Your task to perform on an android device: open chrome privacy settings Image 0: 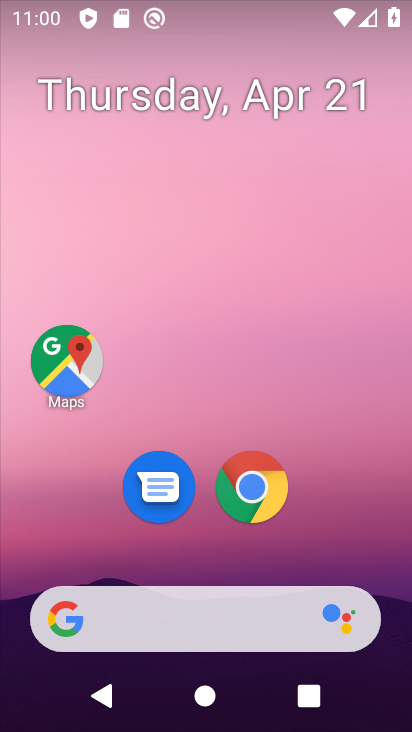
Step 0: click (249, 515)
Your task to perform on an android device: open chrome privacy settings Image 1: 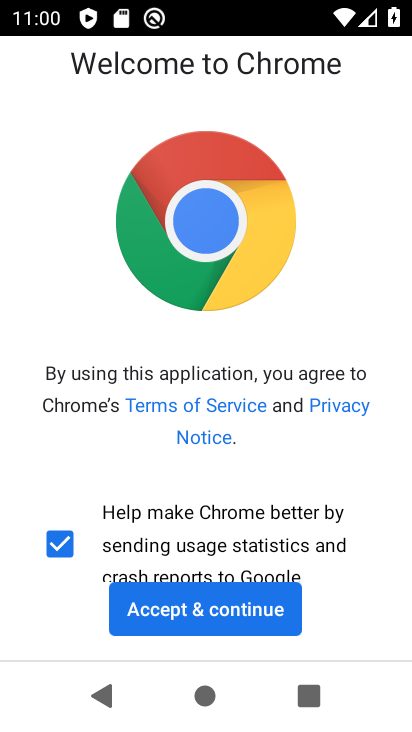
Step 1: click (217, 611)
Your task to perform on an android device: open chrome privacy settings Image 2: 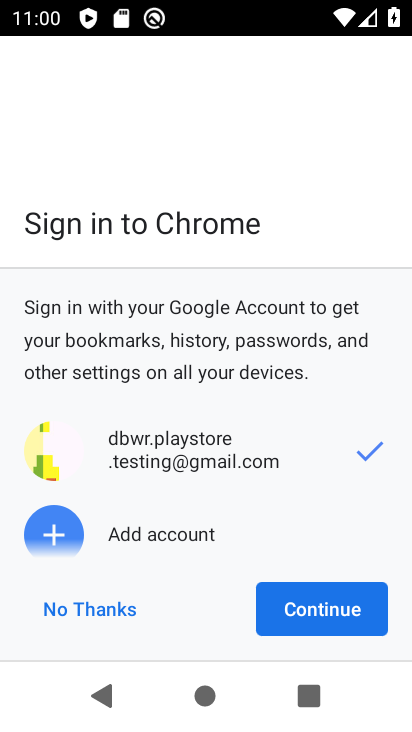
Step 2: click (283, 613)
Your task to perform on an android device: open chrome privacy settings Image 3: 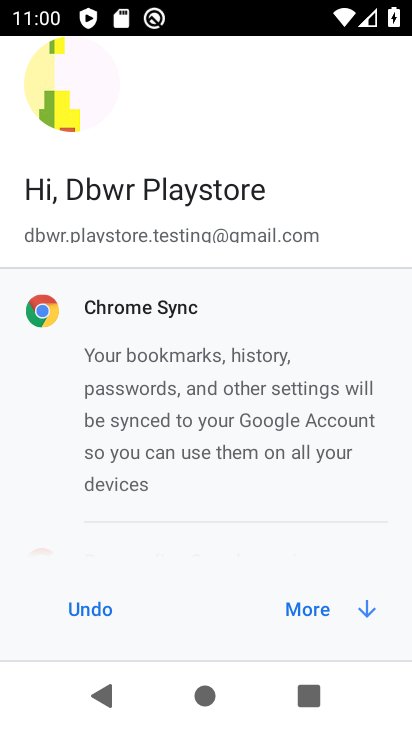
Step 3: click (283, 613)
Your task to perform on an android device: open chrome privacy settings Image 4: 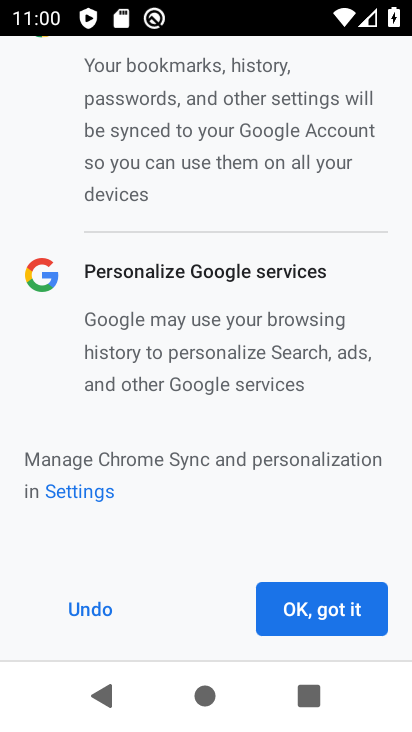
Step 4: click (316, 612)
Your task to perform on an android device: open chrome privacy settings Image 5: 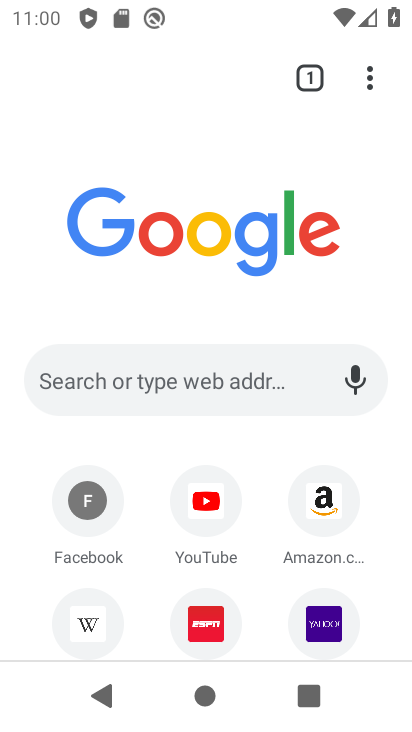
Step 5: click (370, 79)
Your task to perform on an android device: open chrome privacy settings Image 6: 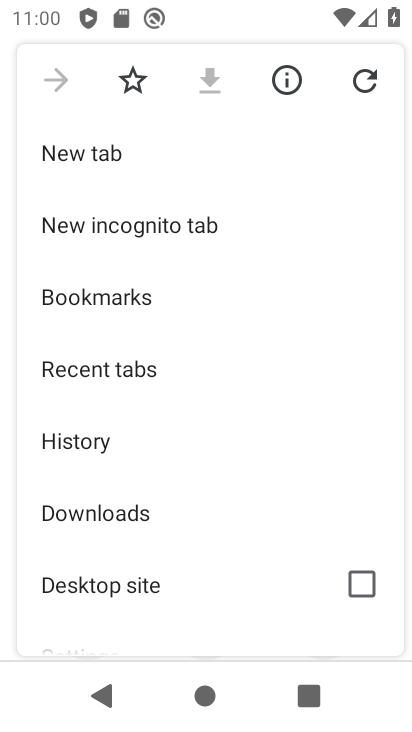
Step 6: drag from (207, 536) to (242, 211)
Your task to perform on an android device: open chrome privacy settings Image 7: 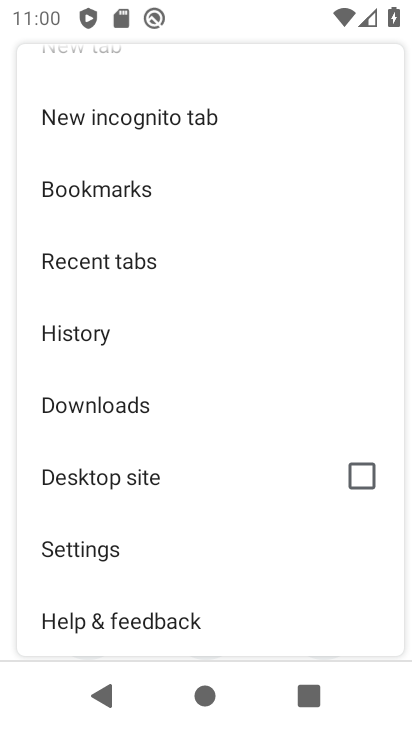
Step 7: click (89, 557)
Your task to perform on an android device: open chrome privacy settings Image 8: 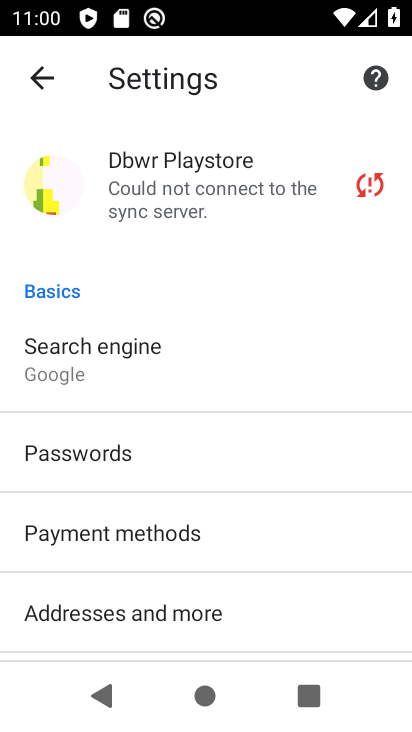
Step 8: drag from (203, 556) to (245, 141)
Your task to perform on an android device: open chrome privacy settings Image 9: 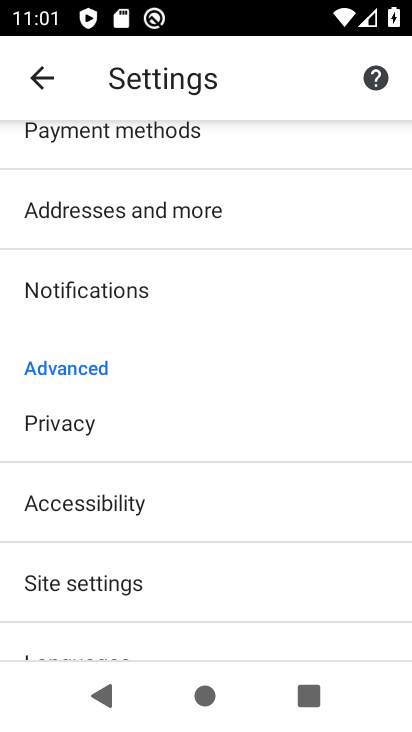
Step 9: click (113, 425)
Your task to perform on an android device: open chrome privacy settings Image 10: 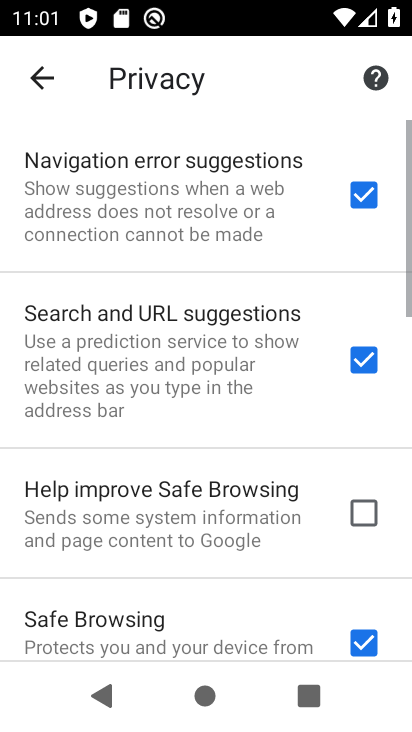
Step 10: task complete